Your task to perform on an android device: What's the top post on reddit? Image 0: 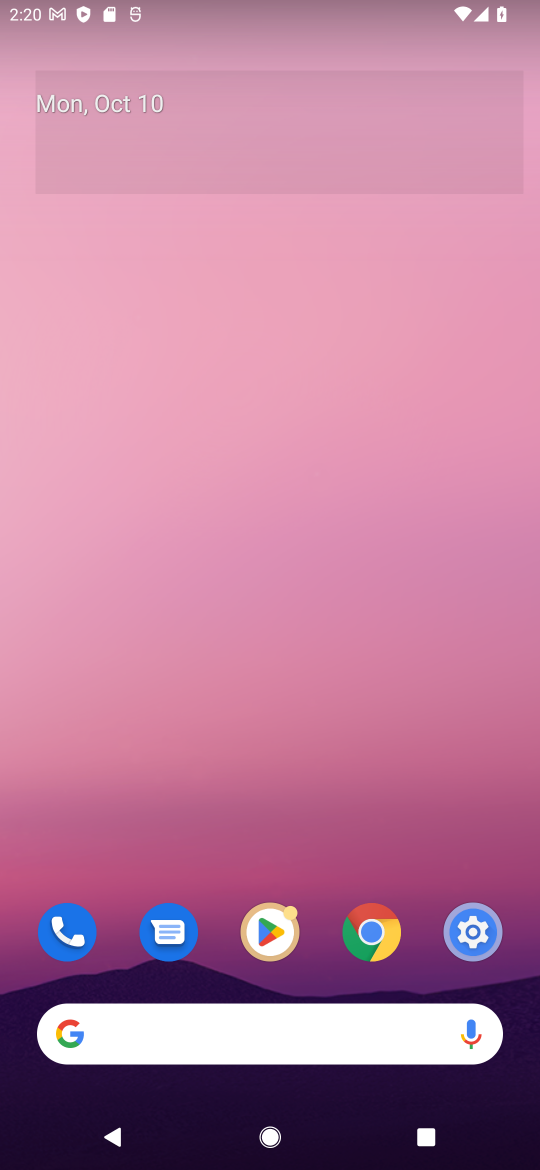
Step 0: click (227, 1031)
Your task to perform on an android device: What's the top post on reddit? Image 1: 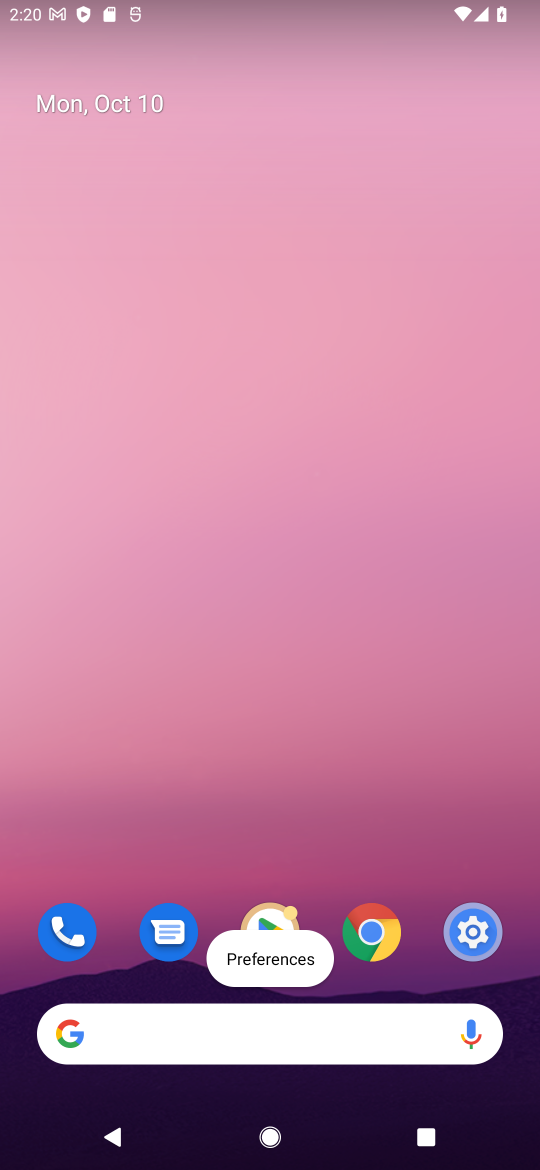
Step 1: click (211, 1045)
Your task to perform on an android device: What's the top post on reddit? Image 2: 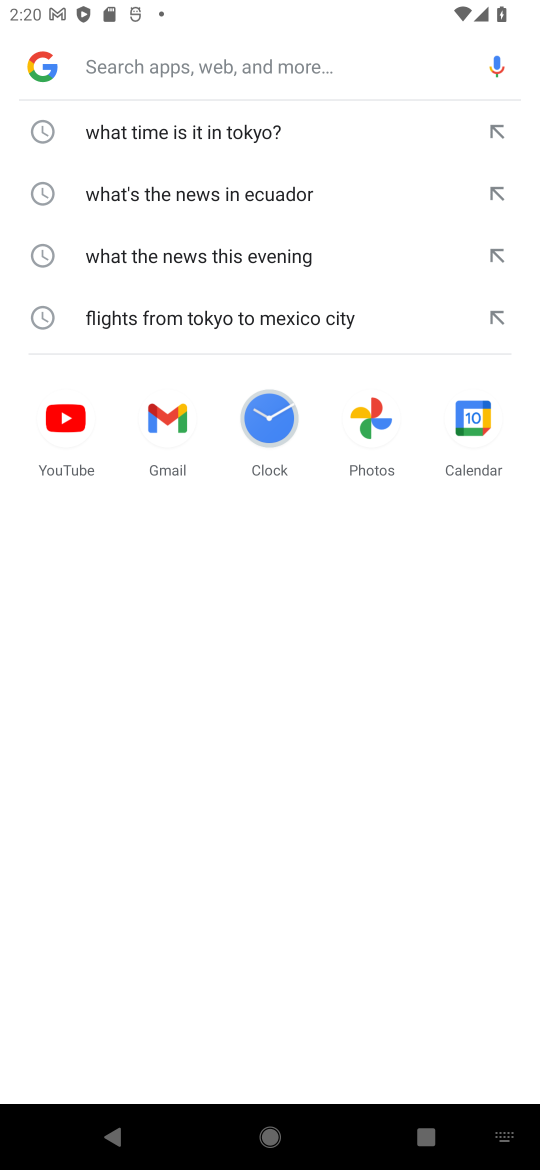
Step 2: type "What's the top post on reddit?"
Your task to perform on an android device: What's the top post on reddit? Image 3: 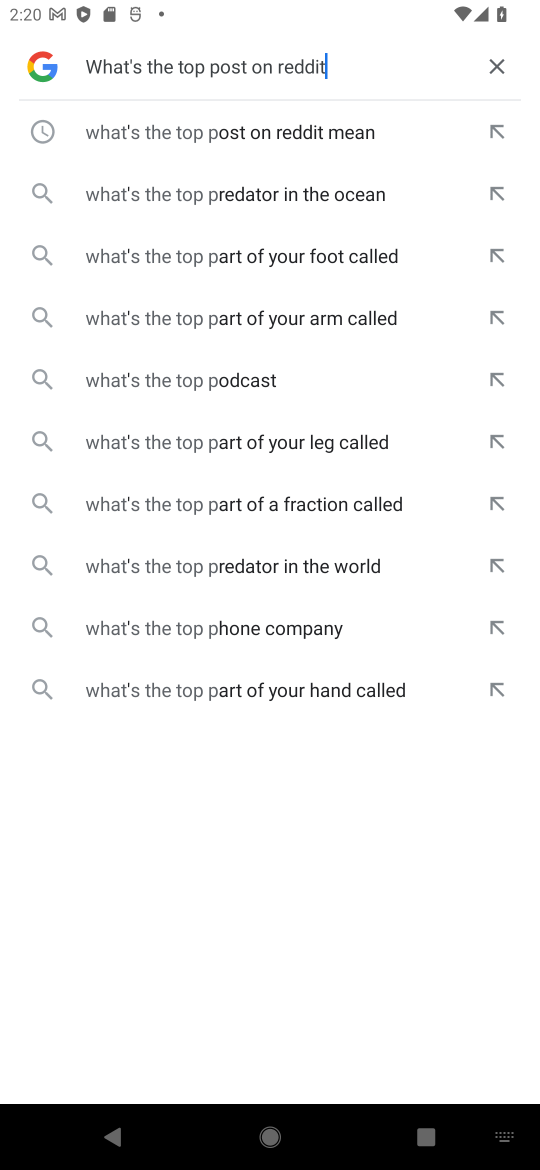
Step 3: press enter
Your task to perform on an android device: What's the top post on reddit? Image 4: 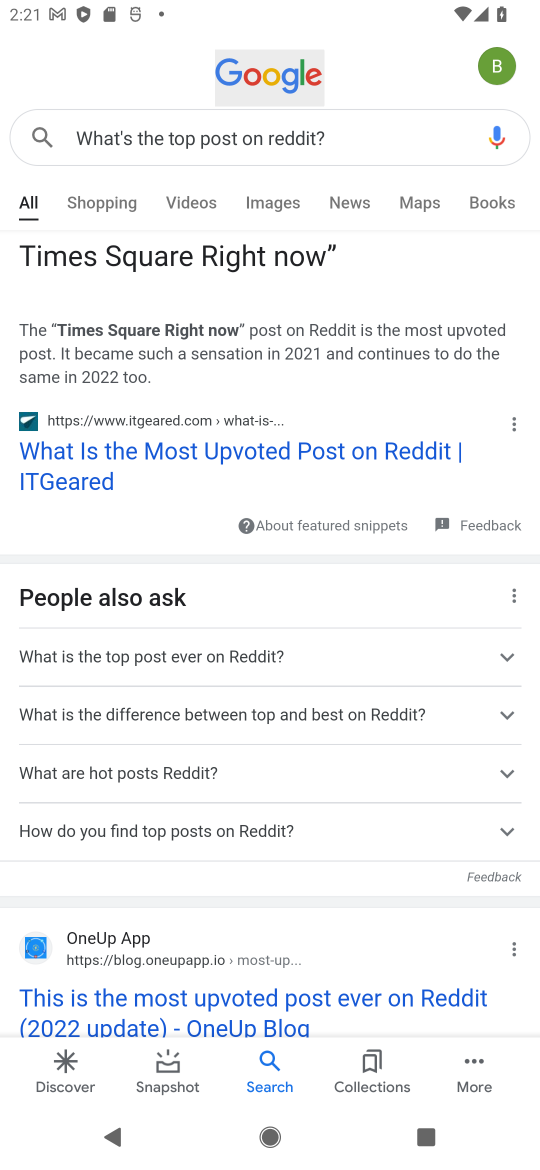
Step 4: click (342, 453)
Your task to perform on an android device: What's the top post on reddit? Image 5: 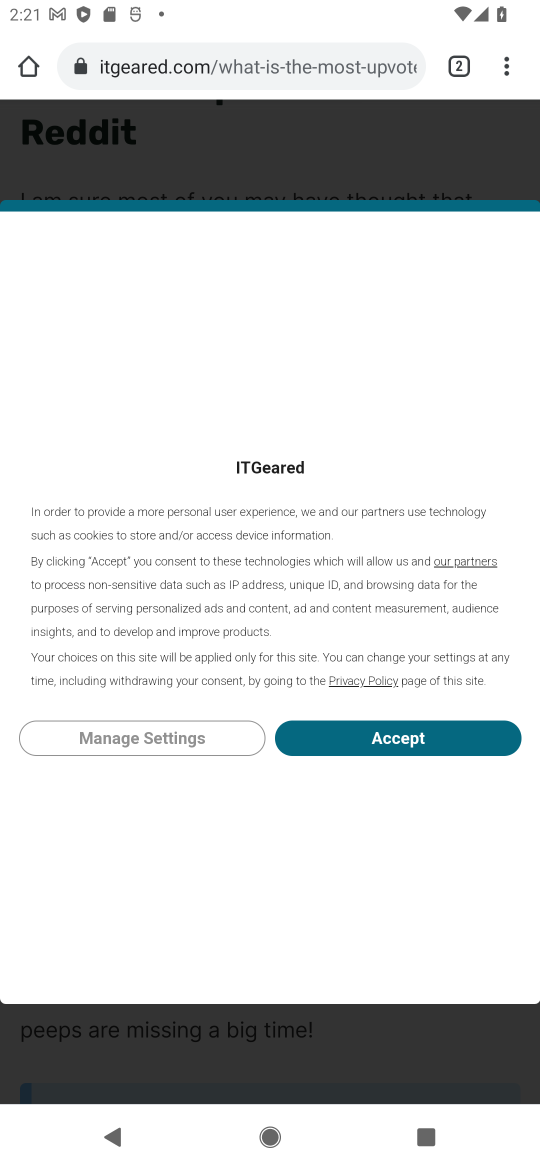
Step 5: click (389, 748)
Your task to perform on an android device: What's the top post on reddit? Image 6: 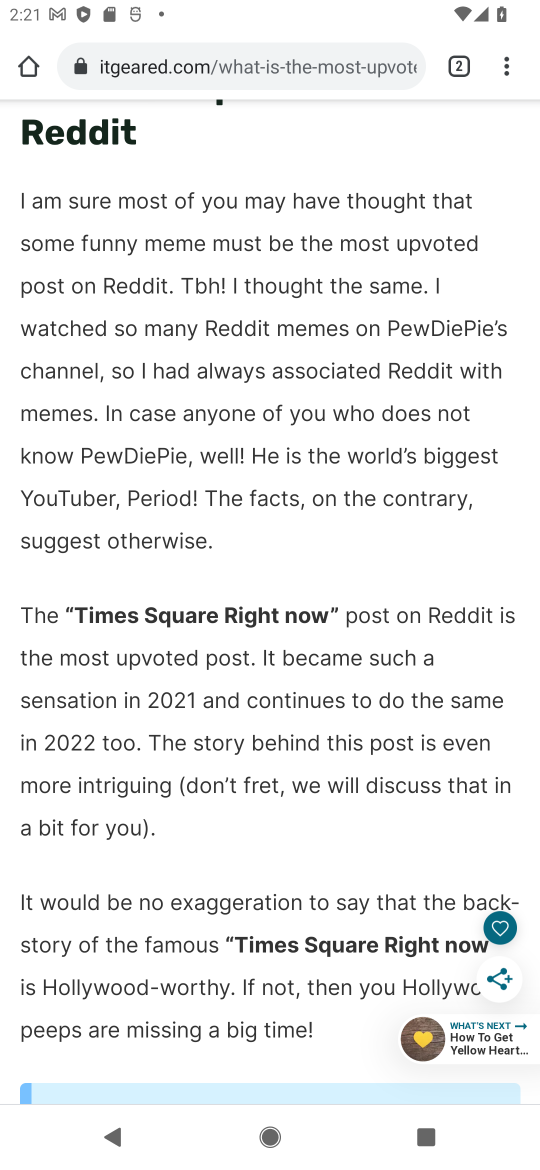
Step 6: task complete